Your task to perform on an android device: clear history in the chrome app Image 0: 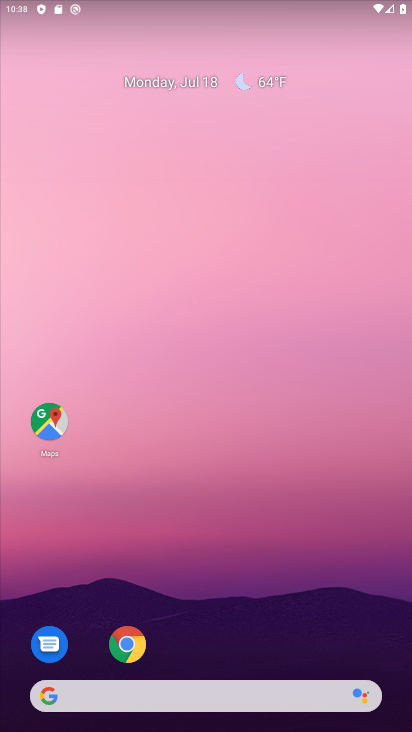
Step 0: click (127, 647)
Your task to perform on an android device: clear history in the chrome app Image 1: 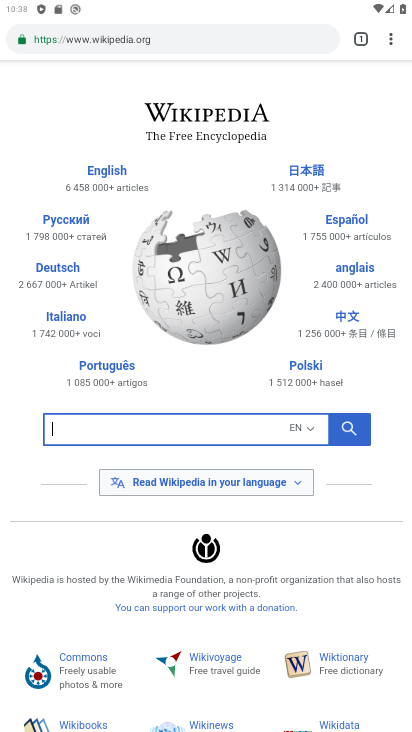
Step 1: click (392, 31)
Your task to perform on an android device: clear history in the chrome app Image 2: 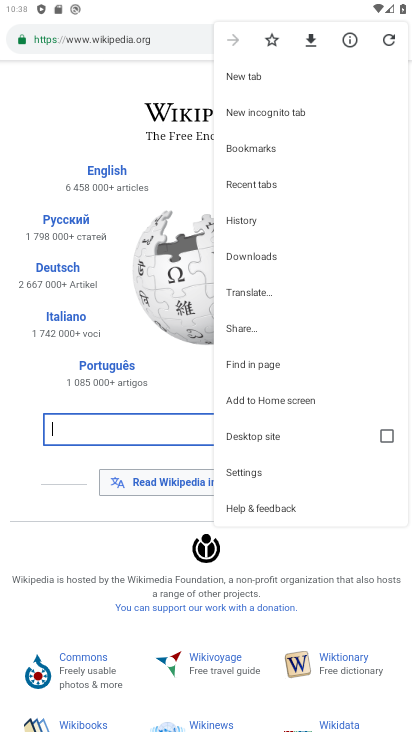
Step 2: click (250, 219)
Your task to perform on an android device: clear history in the chrome app Image 3: 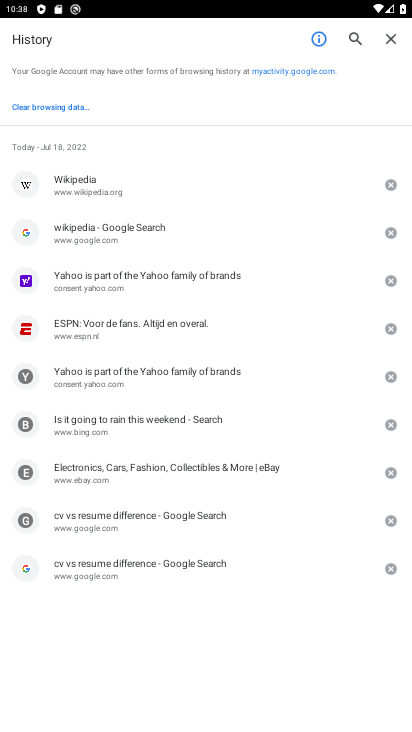
Step 3: click (29, 110)
Your task to perform on an android device: clear history in the chrome app Image 4: 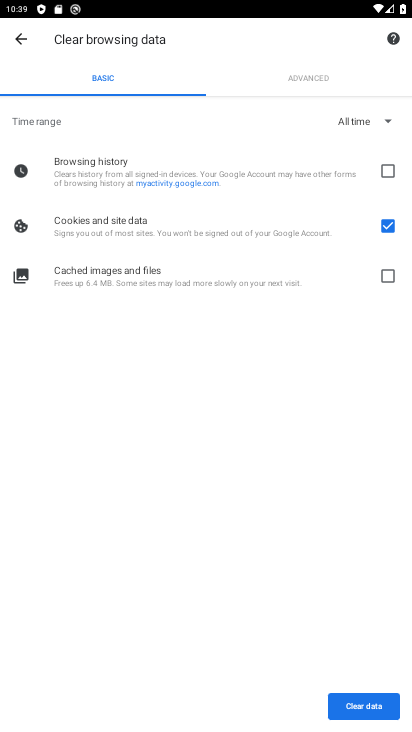
Step 4: click (374, 179)
Your task to perform on an android device: clear history in the chrome app Image 5: 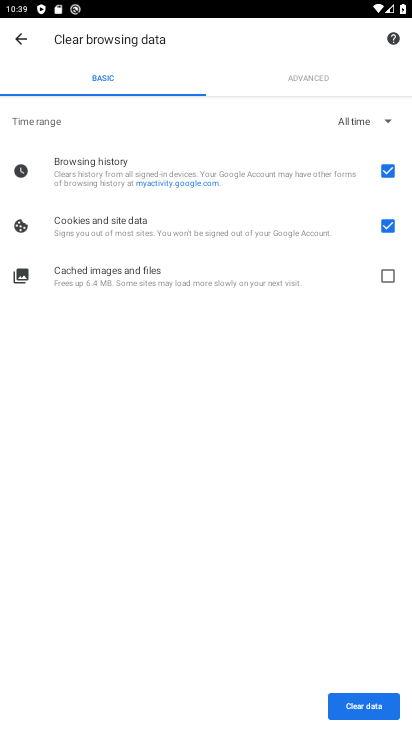
Step 5: click (385, 281)
Your task to perform on an android device: clear history in the chrome app Image 6: 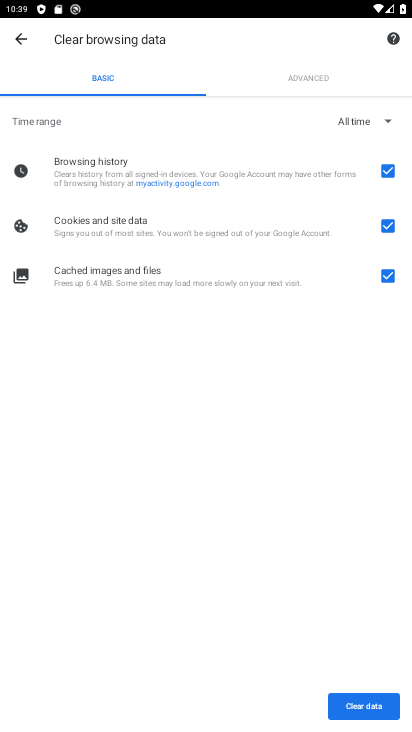
Step 6: click (358, 710)
Your task to perform on an android device: clear history in the chrome app Image 7: 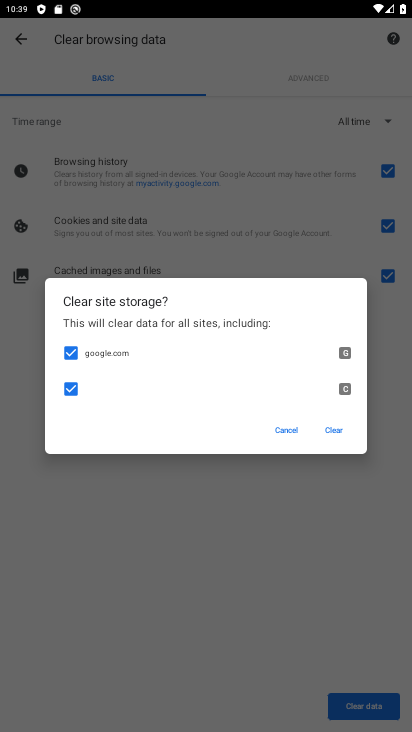
Step 7: click (333, 442)
Your task to perform on an android device: clear history in the chrome app Image 8: 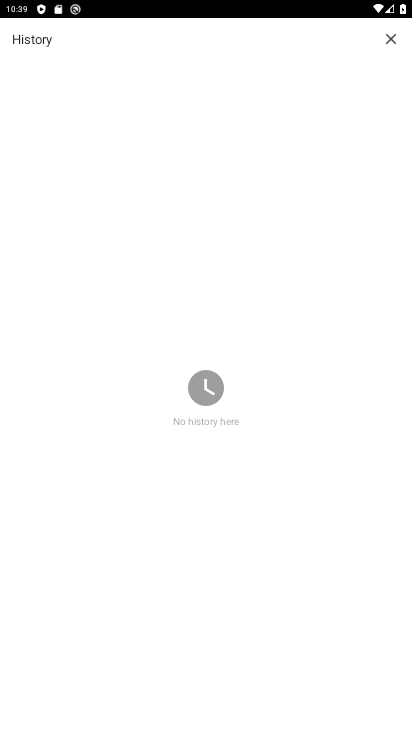
Step 8: task complete